Your task to perform on an android device: change the clock display to show seconds Image 0: 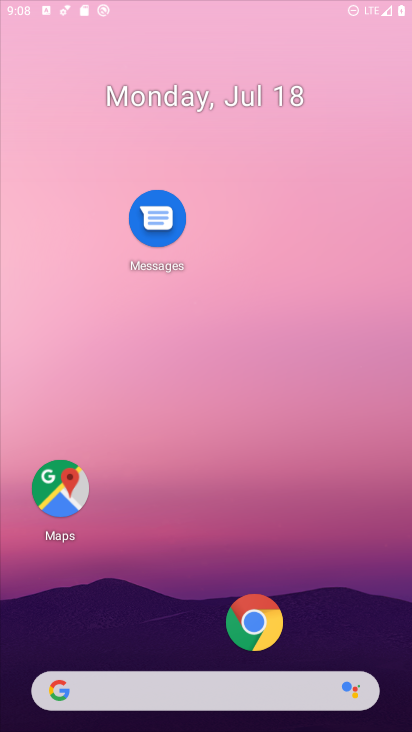
Step 0: drag from (264, 368) to (320, 57)
Your task to perform on an android device: change the clock display to show seconds Image 1: 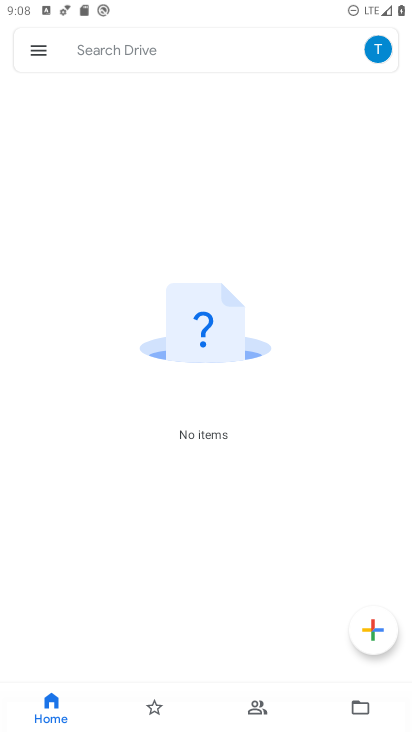
Step 1: press home button
Your task to perform on an android device: change the clock display to show seconds Image 2: 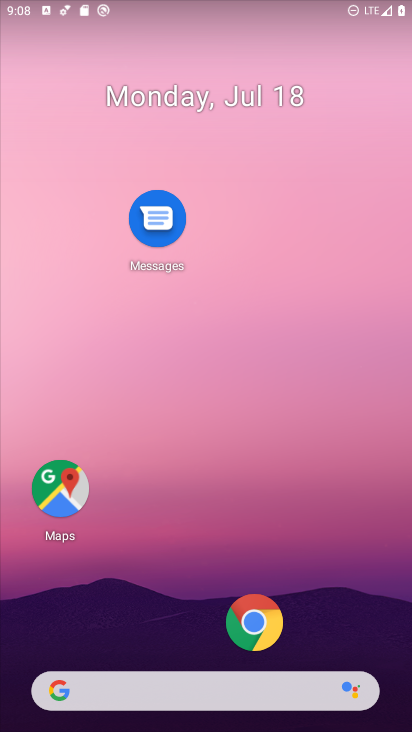
Step 2: drag from (229, 645) to (300, 88)
Your task to perform on an android device: change the clock display to show seconds Image 3: 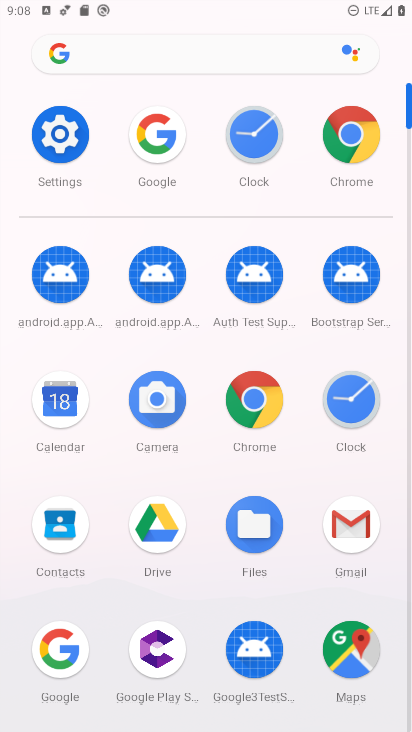
Step 3: click (358, 418)
Your task to perform on an android device: change the clock display to show seconds Image 4: 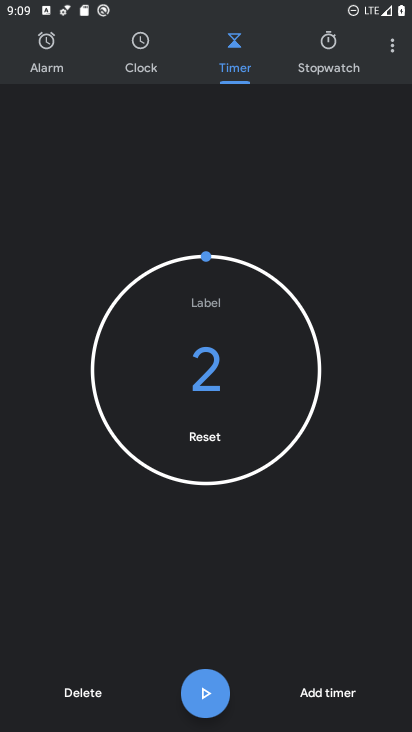
Step 4: click (392, 53)
Your task to perform on an android device: change the clock display to show seconds Image 5: 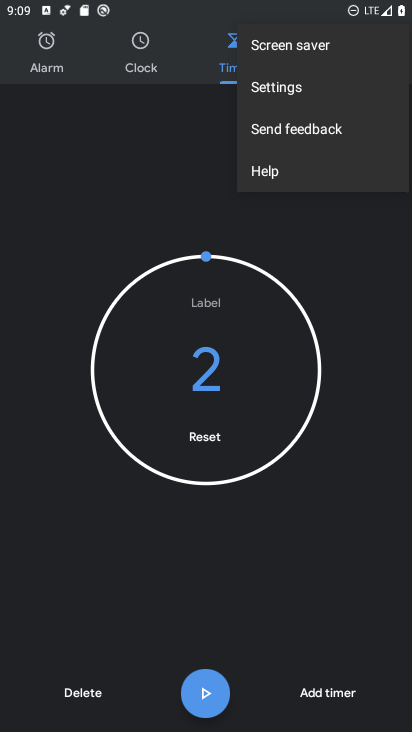
Step 5: click (287, 88)
Your task to perform on an android device: change the clock display to show seconds Image 6: 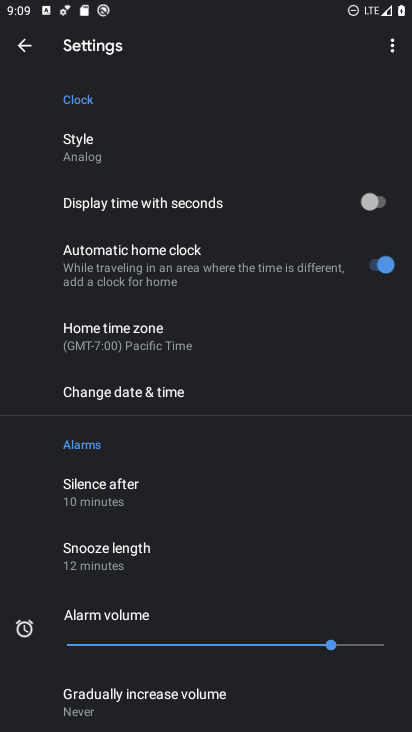
Step 6: click (259, 210)
Your task to perform on an android device: change the clock display to show seconds Image 7: 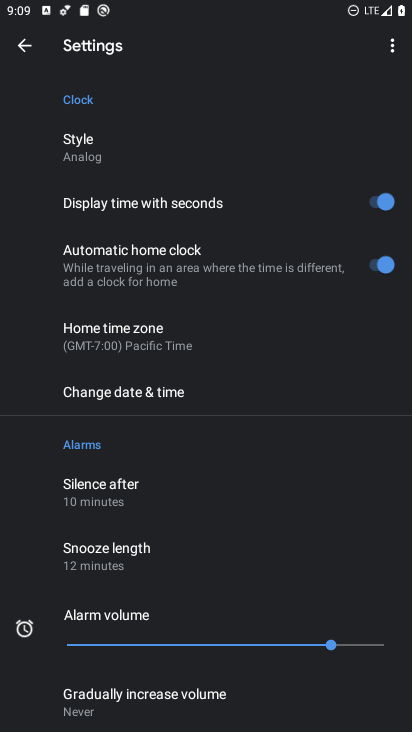
Step 7: task complete